Your task to perform on an android device: empty trash in the gmail app Image 0: 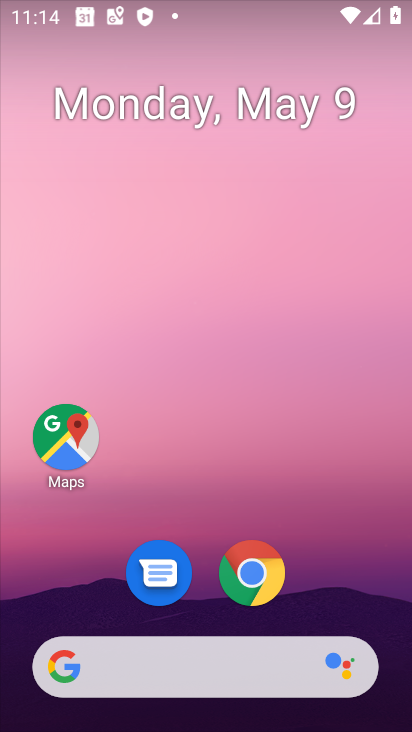
Step 0: drag from (227, 571) to (265, 343)
Your task to perform on an android device: empty trash in the gmail app Image 1: 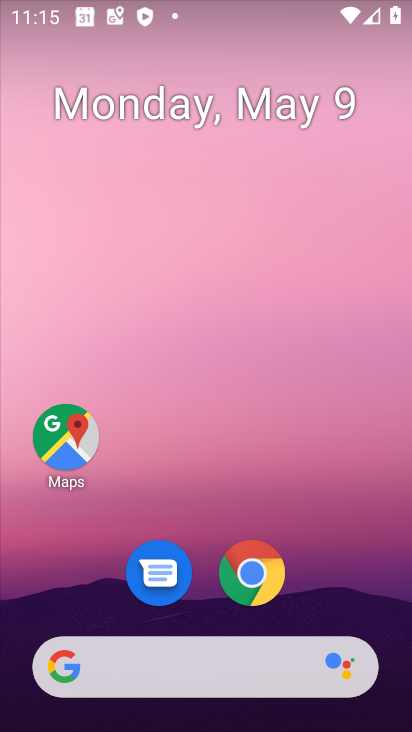
Step 1: drag from (197, 619) to (250, 203)
Your task to perform on an android device: empty trash in the gmail app Image 2: 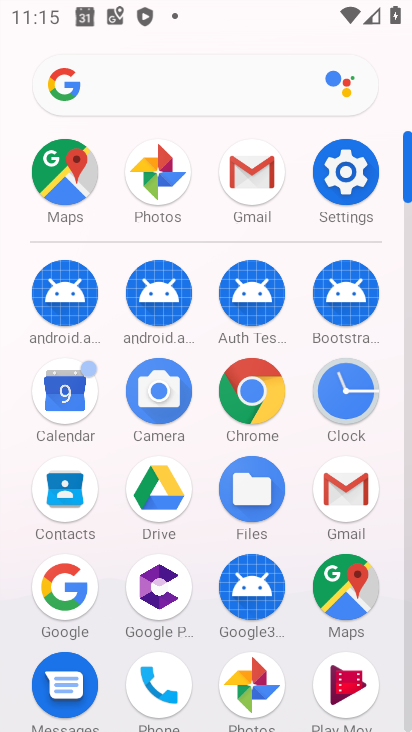
Step 2: click (350, 491)
Your task to perform on an android device: empty trash in the gmail app Image 3: 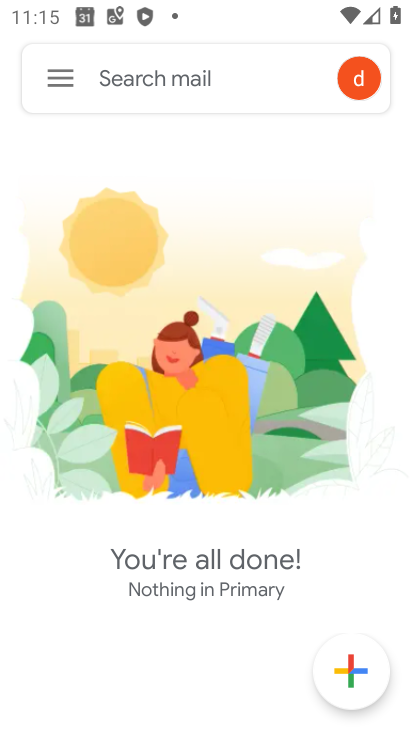
Step 3: click (61, 83)
Your task to perform on an android device: empty trash in the gmail app Image 4: 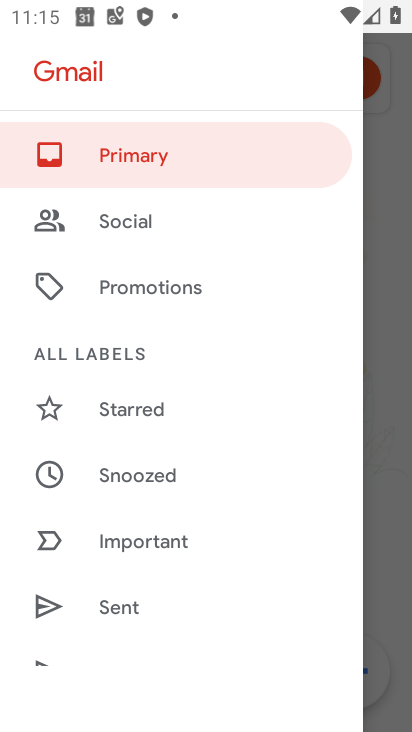
Step 4: drag from (171, 588) to (262, 81)
Your task to perform on an android device: empty trash in the gmail app Image 5: 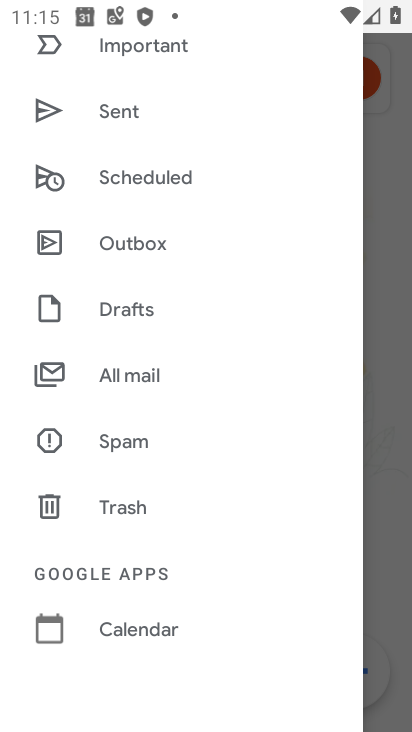
Step 5: click (138, 501)
Your task to perform on an android device: empty trash in the gmail app Image 6: 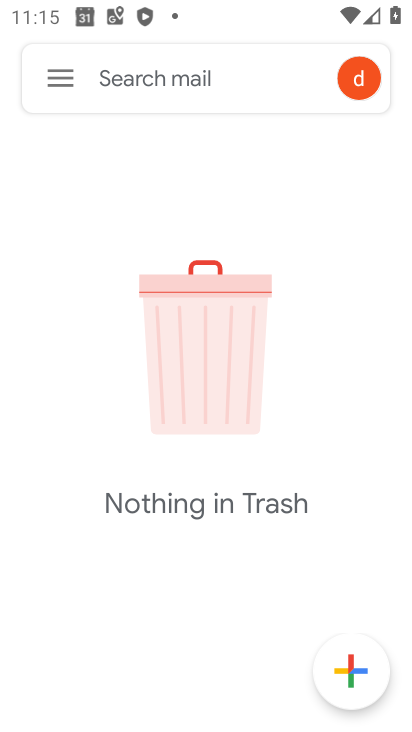
Step 6: click (199, 495)
Your task to perform on an android device: empty trash in the gmail app Image 7: 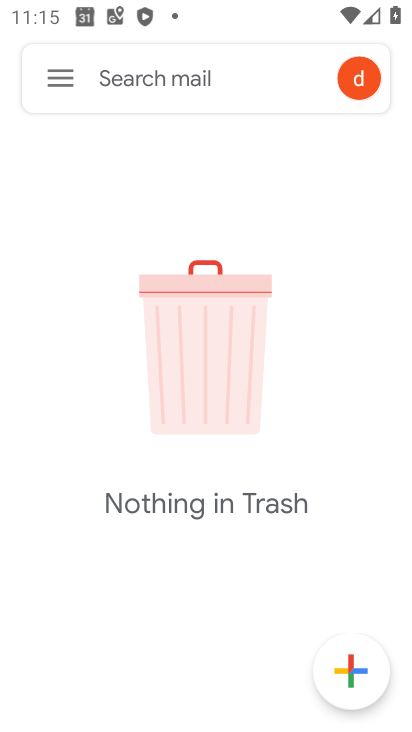
Step 7: task complete